Your task to perform on an android device: turn on translation in the chrome app Image 0: 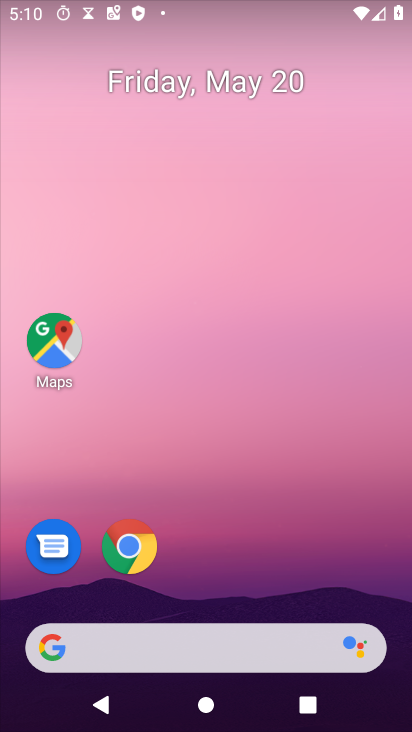
Step 0: click (128, 541)
Your task to perform on an android device: turn on translation in the chrome app Image 1: 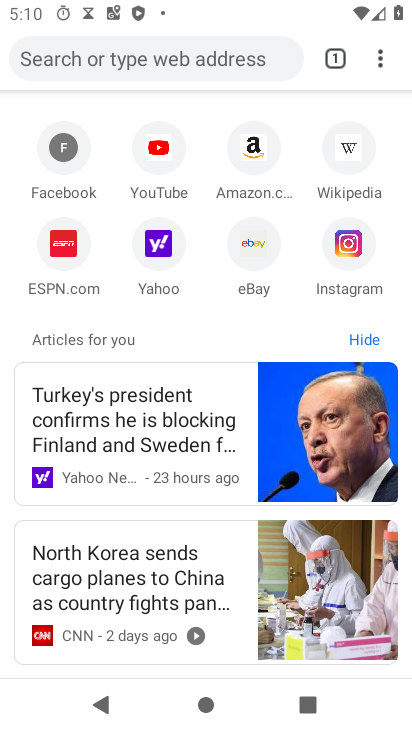
Step 1: click (382, 63)
Your task to perform on an android device: turn on translation in the chrome app Image 2: 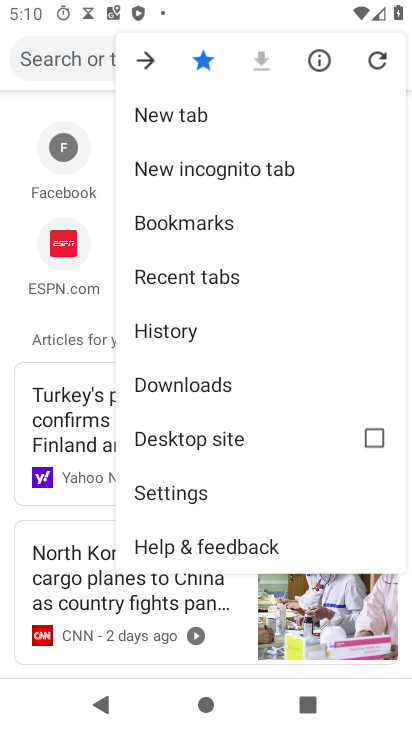
Step 2: drag from (176, 349) to (213, 268)
Your task to perform on an android device: turn on translation in the chrome app Image 3: 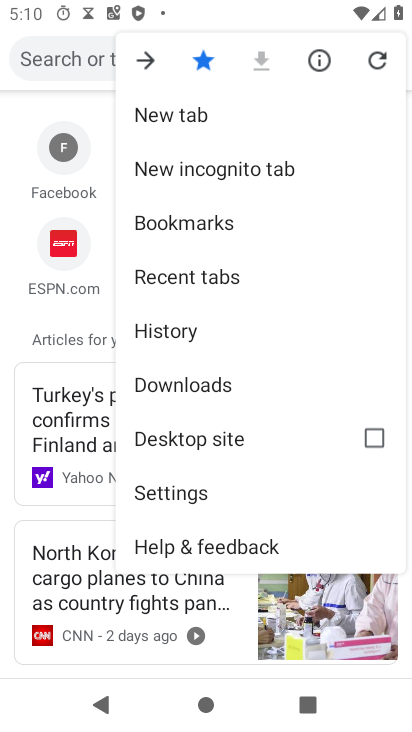
Step 3: click (180, 488)
Your task to perform on an android device: turn on translation in the chrome app Image 4: 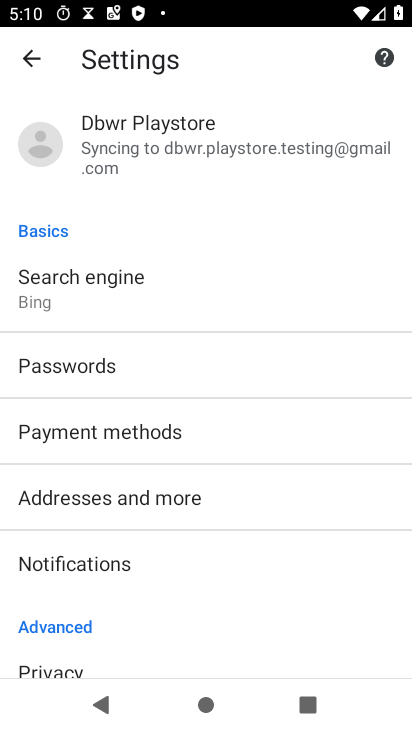
Step 4: drag from (124, 581) to (151, 481)
Your task to perform on an android device: turn on translation in the chrome app Image 5: 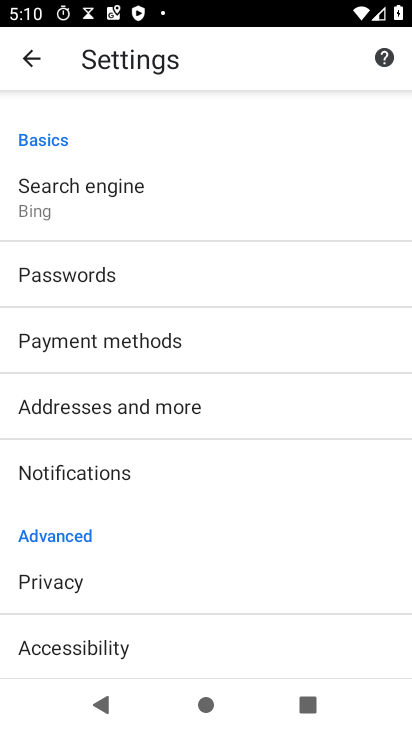
Step 5: drag from (115, 569) to (164, 488)
Your task to perform on an android device: turn on translation in the chrome app Image 6: 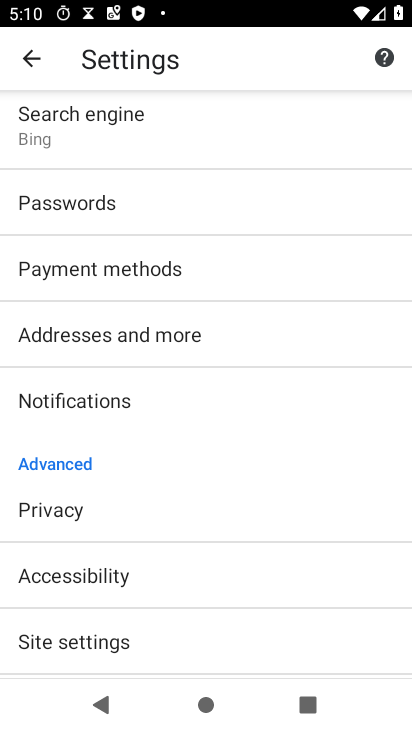
Step 6: drag from (108, 596) to (159, 522)
Your task to perform on an android device: turn on translation in the chrome app Image 7: 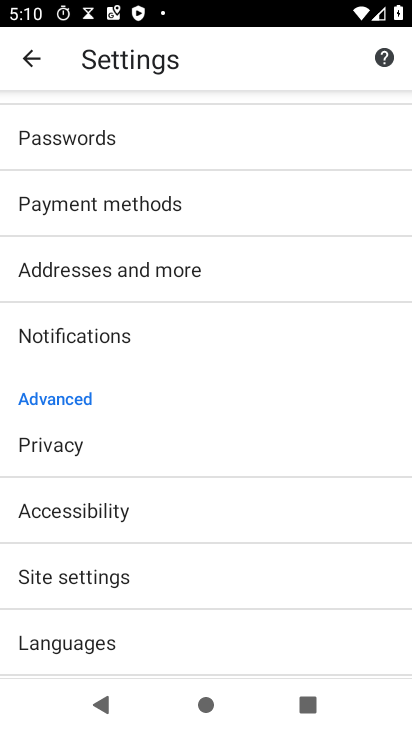
Step 7: drag from (105, 618) to (166, 524)
Your task to perform on an android device: turn on translation in the chrome app Image 8: 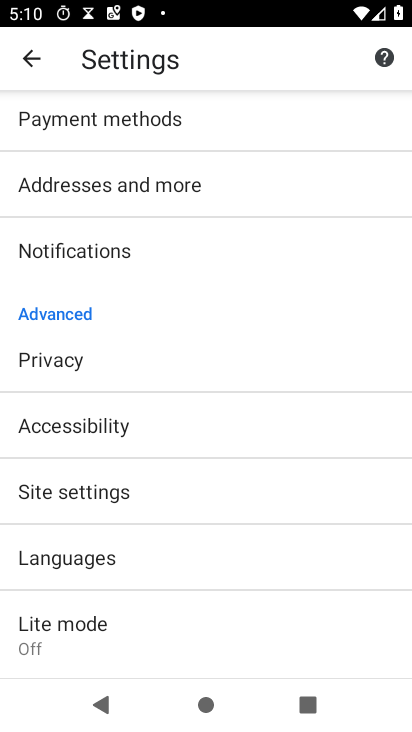
Step 8: drag from (100, 619) to (158, 518)
Your task to perform on an android device: turn on translation in the chrome app Image 9: 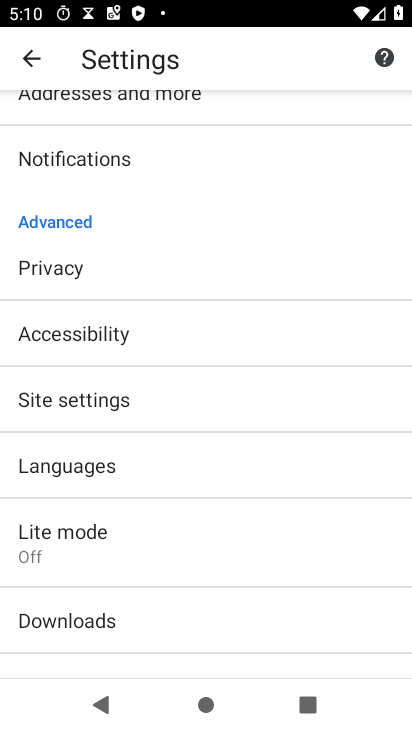
Step 9: drag from (101, 609) to (159, 517)
Your task to perform on an android device: turn on translation in the chrome app Image 10: 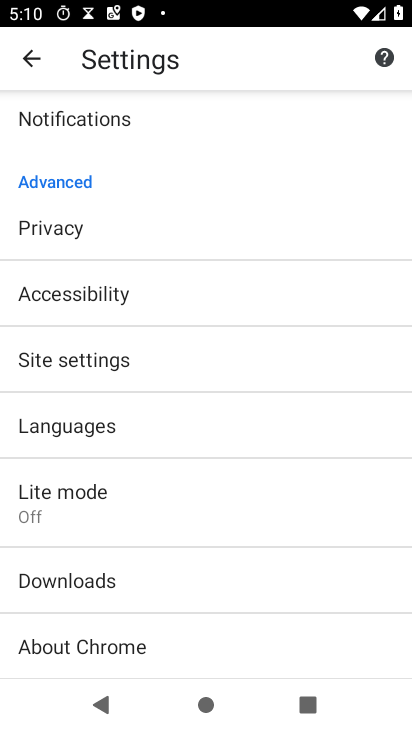
Step 10: drag from (92, 609) to (133, 467)
Your task to perform on an android device: turn on translation in the chrome app Image 11: 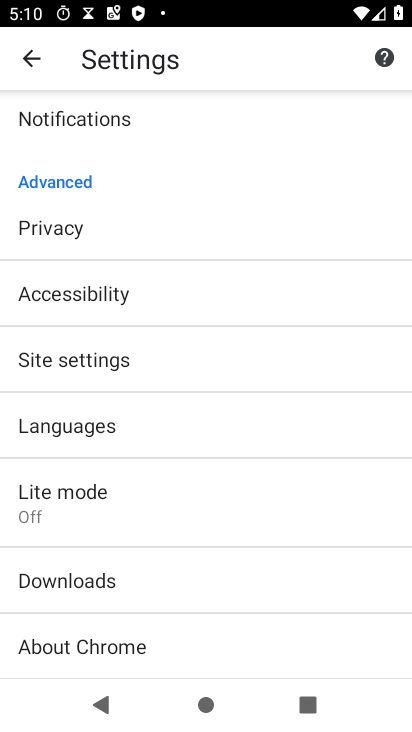
Step 11: click (94, 425)
Your task to perform on an android device: turn on translation in the chrome app Image 12: 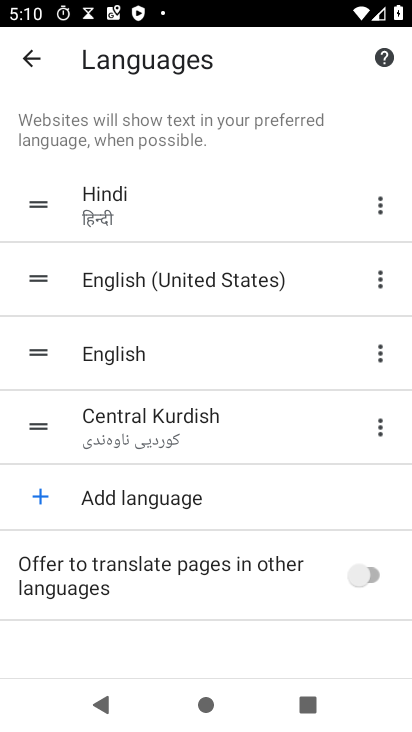
Step 12: click (358, 574)
Your task to perform on an android device: turn on translation in the chrome app Image 13: 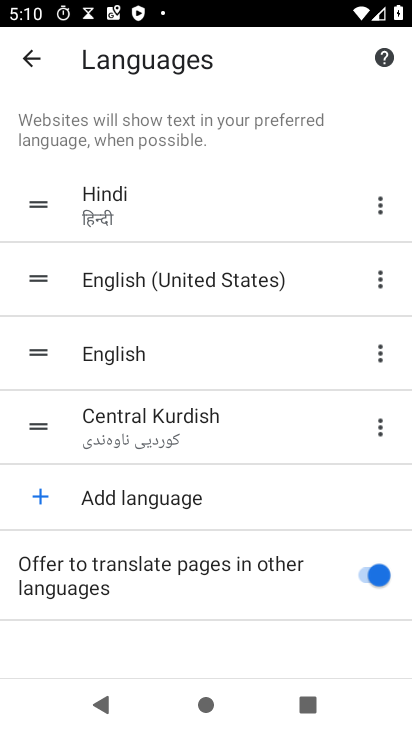
Step 13: task complete